Your task to perform on an android device: Toggle the flashlight Image 0: 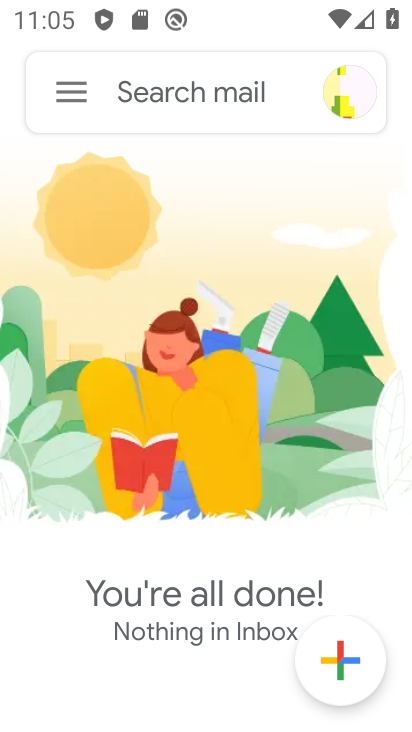
Step 0: task impossible